Your task to perform on an android device: turn on javascript in the chrome app Image 0: 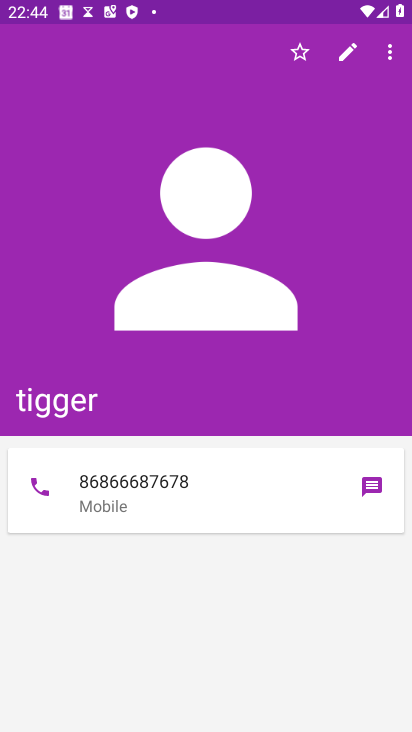
Step 0: press home button
Your task to perform on an android device: turn on javascript in the chrome app Image 1: 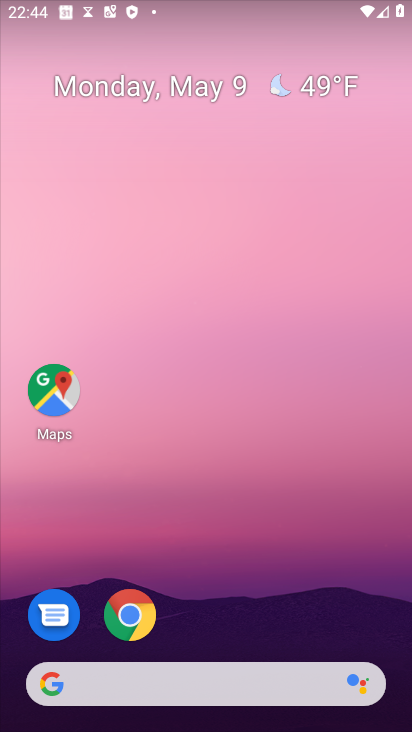
Step 1: click (116, 617)
Your task to perform on an android device: turn on javascript in the chrome app Image 2: 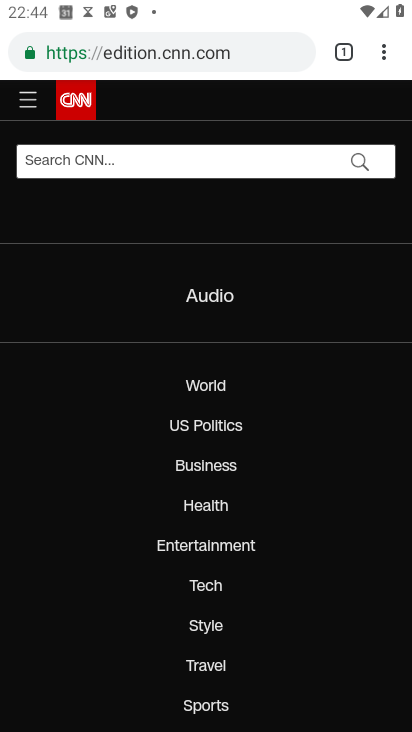
Step 2: drag from (386, 55) to (230, 652)
Your task to perform on an android device: turn on javascript in the chrome app Image 3: 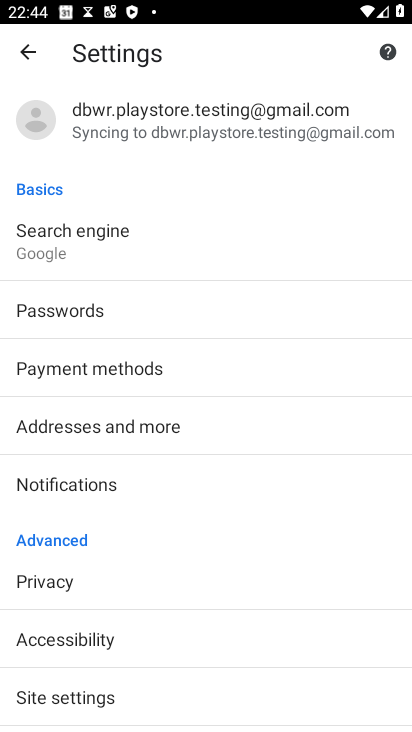
Step 3: drag from (110, 691) to (116, 417)
Your task to perform on an android device: turn on javascript in the chrome app Image 4: 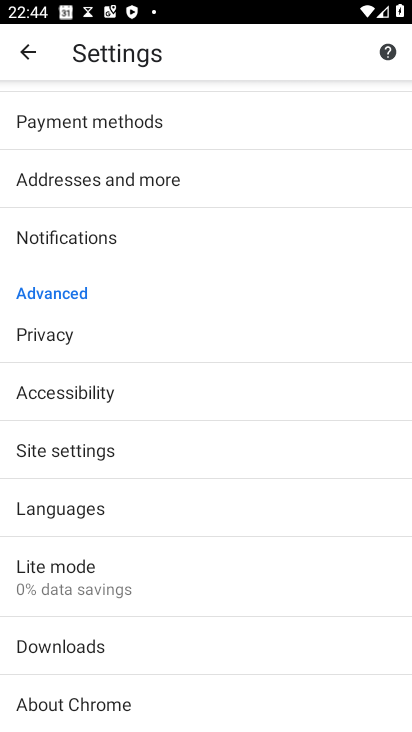
Step 4: click (92, 445)
Your task to perform on an android device: turn on javascript in the chrome app Image 5: 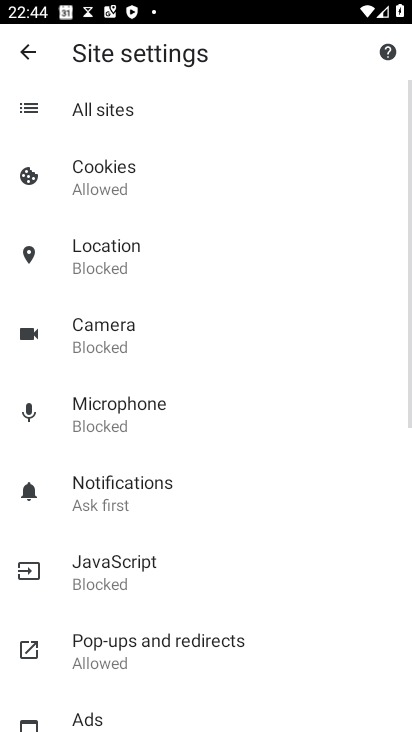
Step 5: click (126, 579)
Your task to perform on an android device: turn on javascript in the chrome app Image 6: 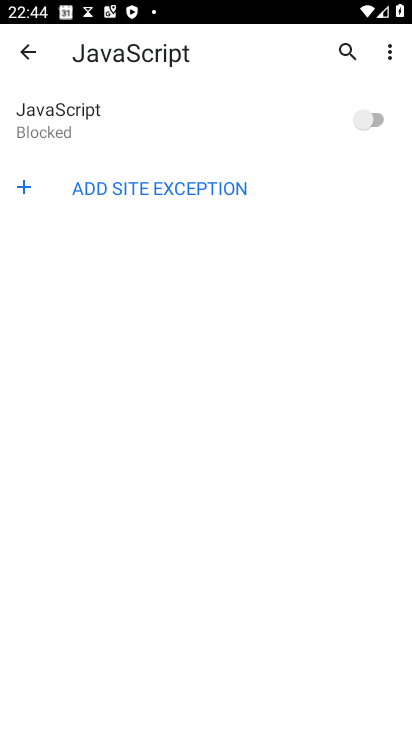
Step 6: click (372, 121)
Your task to perform on an android device: turn on javascript in the chrome app Image 7: 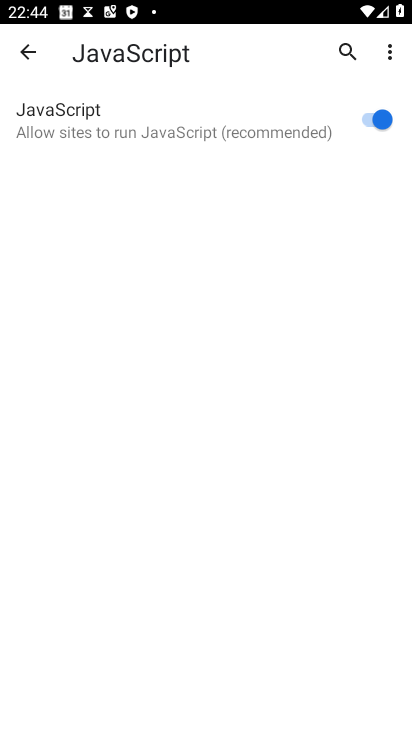
Step 7: task complete